Your task to perform on an android device: change the clock display to digital Image 0: 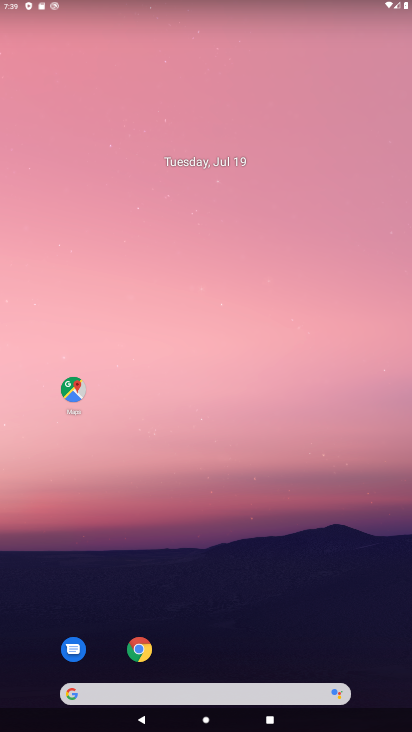
Step 0: drag from (196, 683) to (154, 218)
Your task to perform on an android device: change the clock display to digital Image 1: 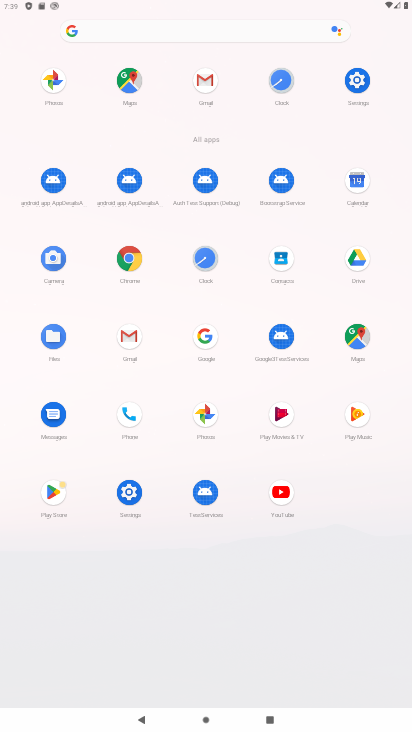
Step 1: click (205, 257)
Your task to perform on an android device: change the clock display to digital Image 2: 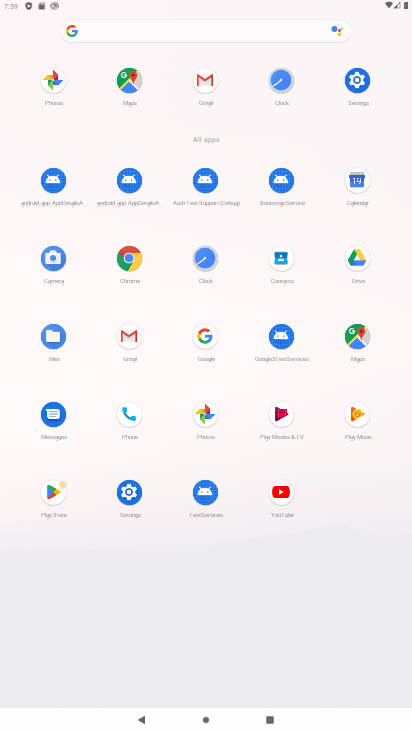
Step 2: click (205, 257)
Your task to perform on an android device: change the clock display to digital Image 3: 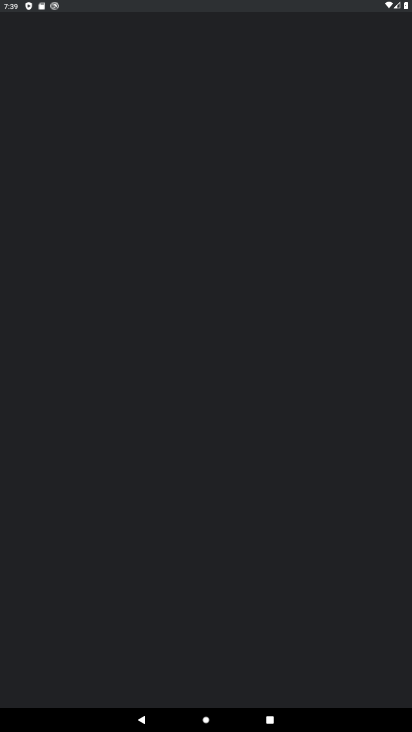
Step 3: click (205, 257)
Your task to perform on an android device: change the clock display to digital Image 4: 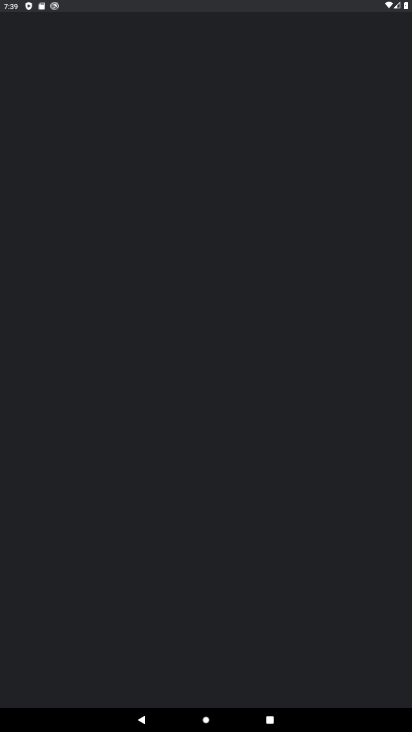
Step 4: click (209, 259)
Your task to perform on an android device: change the clock display to digital Image 5: 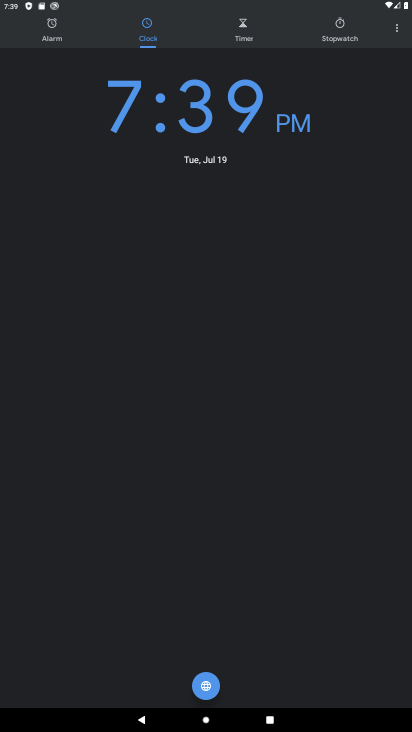
Step 5: click (407, 23)
Your task to perform on an android device: change the clock display to digital Image 6: 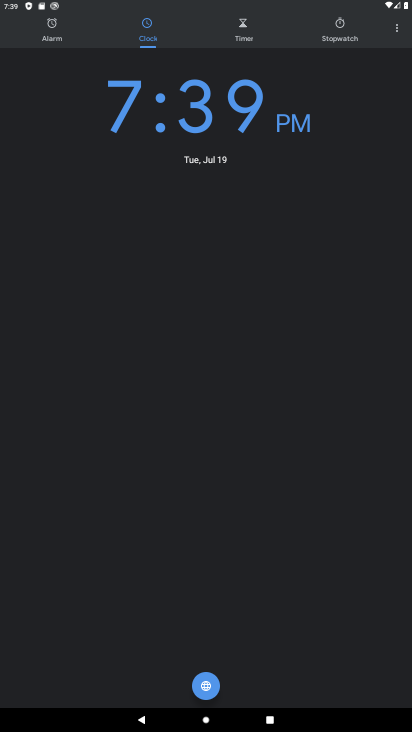
Step 6: click (398, 30)
Your task to perform on an android device: change the clock display to digital Image 7: 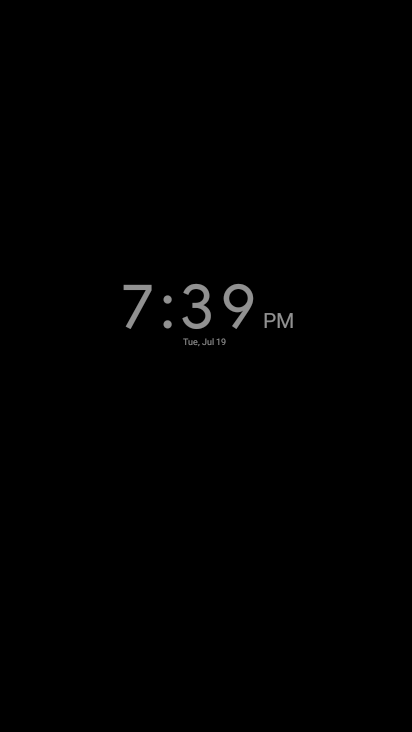
Step 7: press back button
Your task to perform on an android device: change the clock display to digital Image 8: 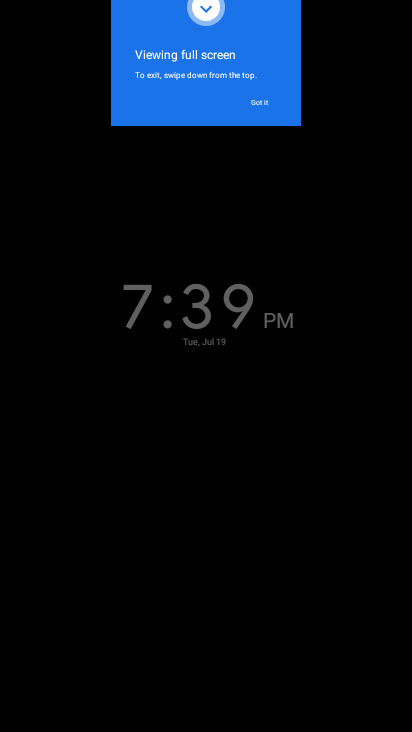
Step 8: press home button
Your task to perform on an android device: change the clock display to digital Image 9: 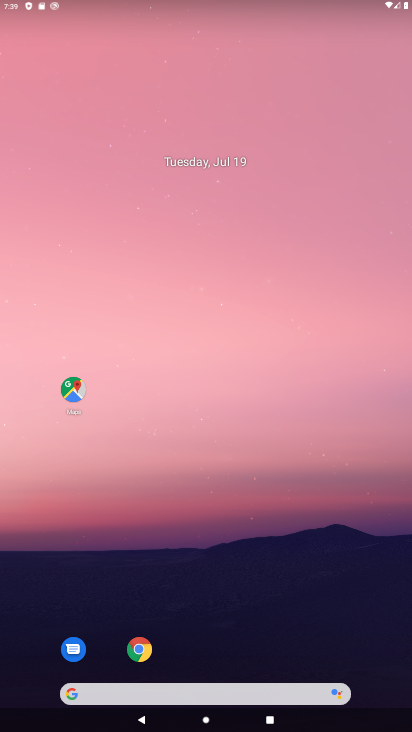
Step 9: drag from (226, 353) to (206, 106)
Your task to perform on an android device: change the clock display to digital Image 10: 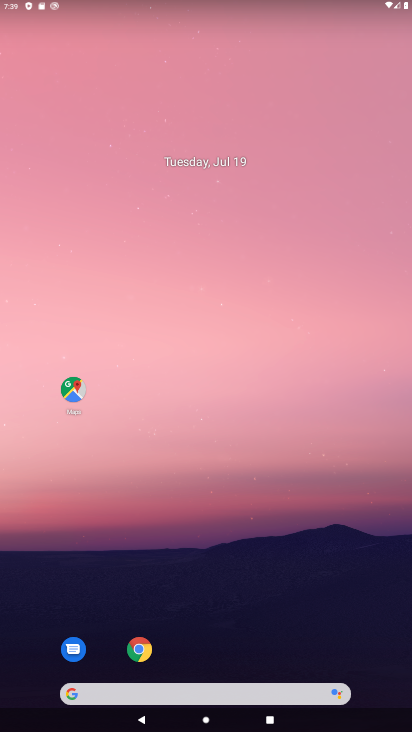
Step 10: drag from (284, 587) to (299, 96)
Your task to perform on an android device: change the clock display to digital Image 11: 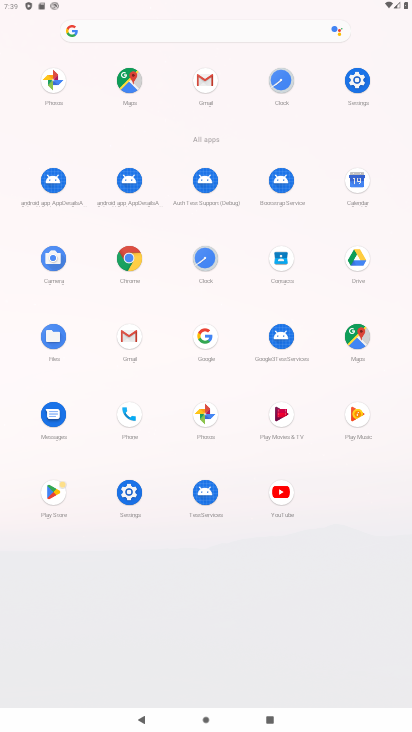
Step 11: click (360, 80)
Your task to perform on an android device: change the clock display to digital Image 12: 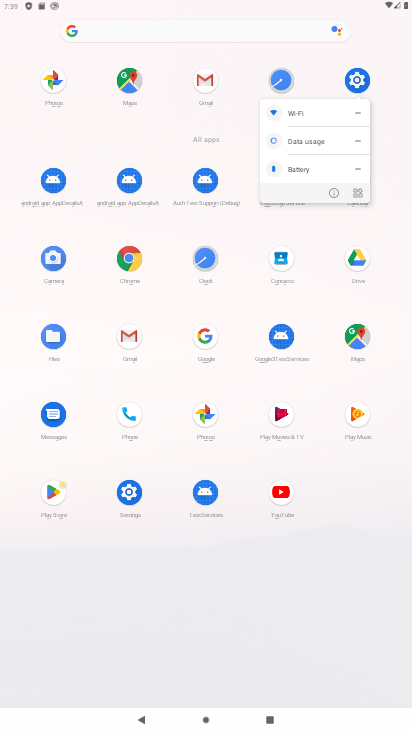
Step 12: click (281, 77)
Your task to perform on an android device: change the clock display to digital Image 13: 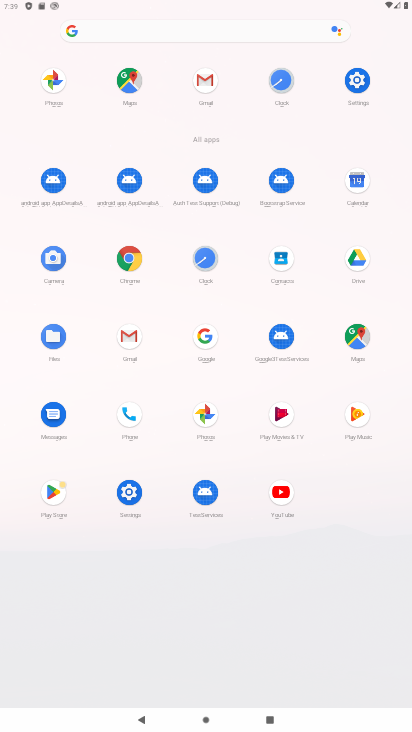
Step 13: click (280, 77)
Your task to perform on an android device: change the clock display to digital Image 14: 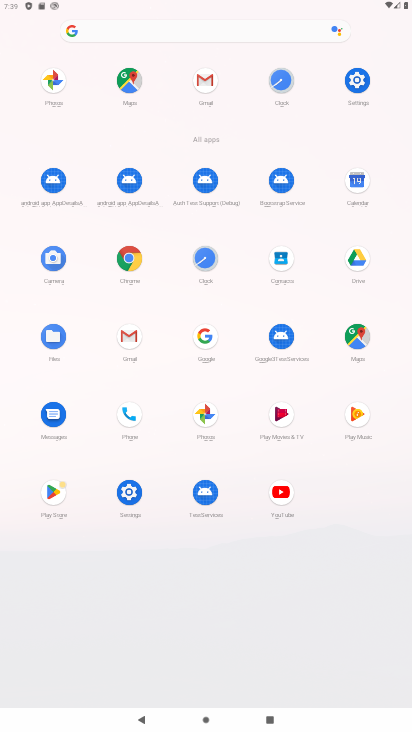
Step 14: click (279, 78)
Your task to perform on an android device: change the clock display to digital Image 15: 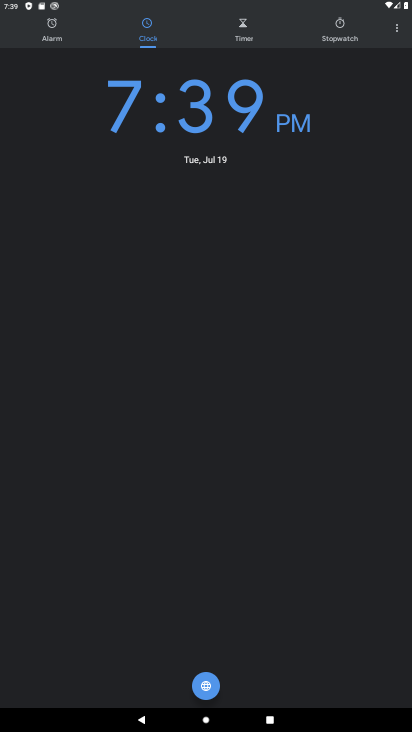
Step 15: click (394, 25)
Your task to perform on an android device: change the clock display to digital Image 16: 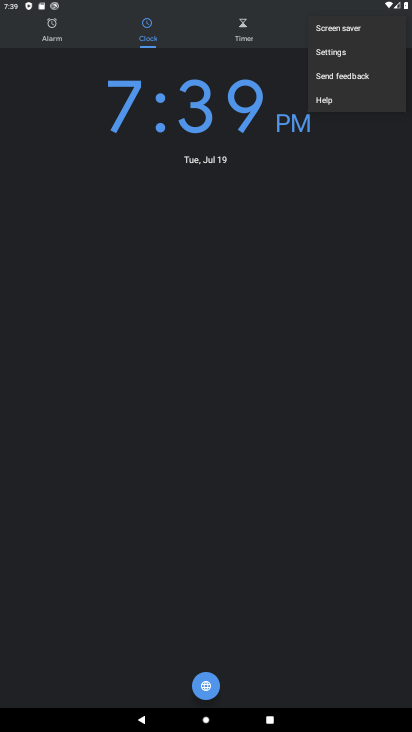
Step 16: click (326, 57)
Your task to perform on an android device: change the clock display to digital Image 17: 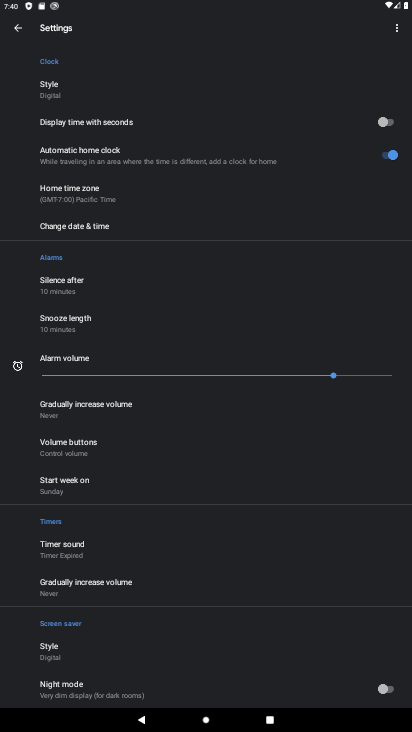
Step 17: task complete